Your task to perform on an android device: change notification settings in the gmail app Image 0: 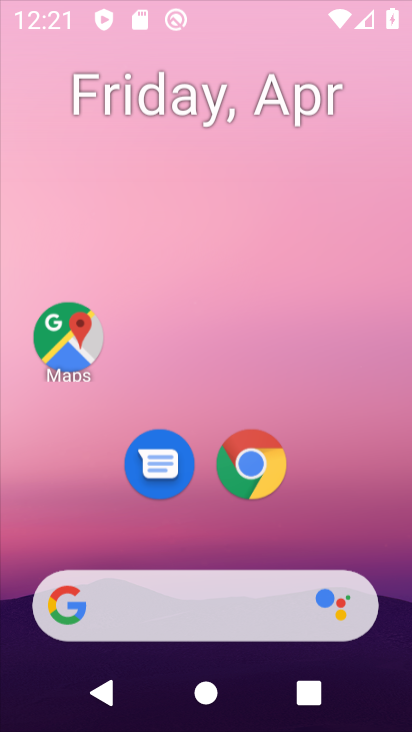
Step 0: click (365, 117)
Your task to perform on an android device: change notification settings in the gmail app Image 1: 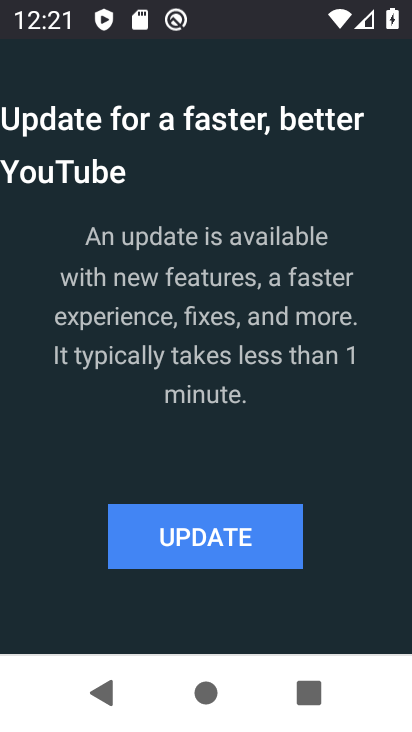
Step 1: press home button
Your task to perform on an android device: change notification settings in the gmail app Image 2: 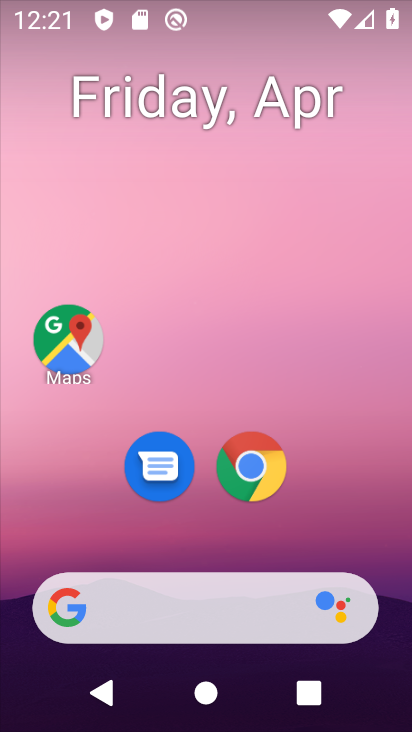
Step 2: drag from (349, 498) to (336, 141)
Your task to perform on an android device: change notification settings in the gmail app Image 3: 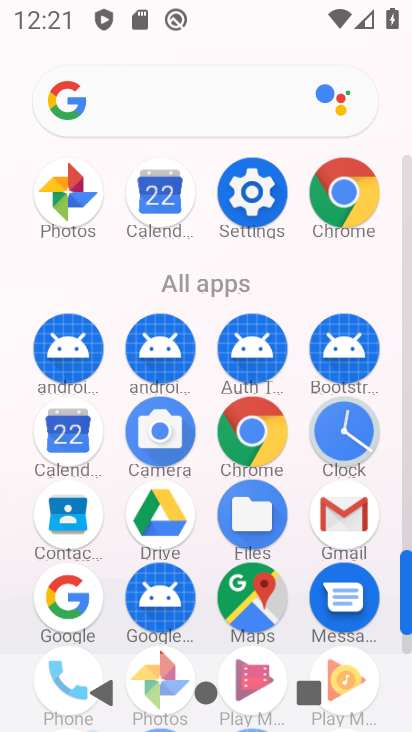
Step 3: click (349, 519)
Your task to perform on an android device: change notification settings in the gmail app Image 4: 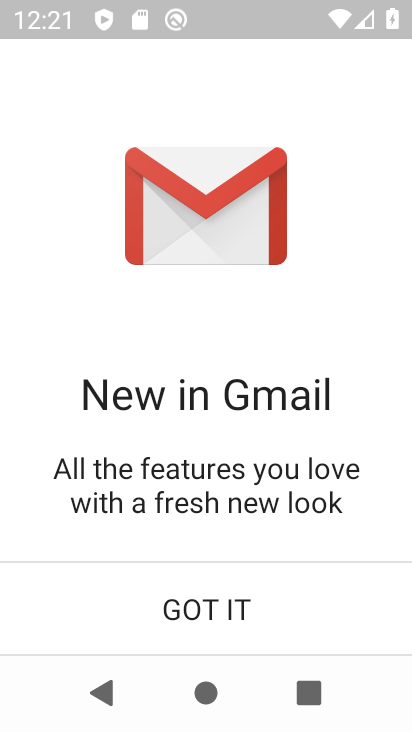
Step 4: click (209, 610)
Your task to perform on an android device: change notification settings in the gmail app Image 5: 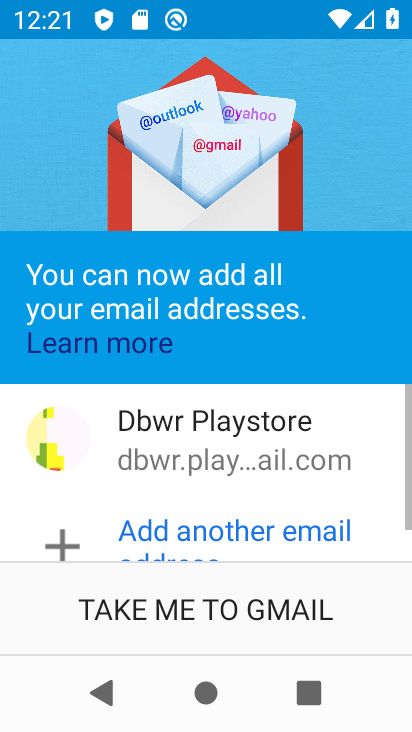
Step 5: click (209, 609)
Your task to perform on an android device: change notification settings in the gmail app Image 6: 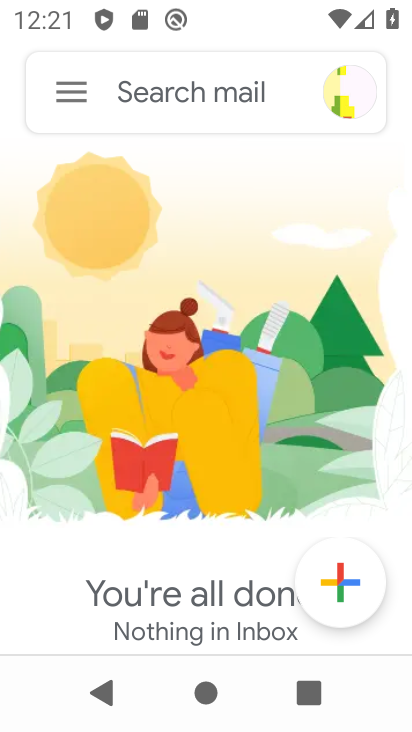
Step 6: click (89, 101)
Your task to perform on an android device: change notification settings in the gmail app Image 7: 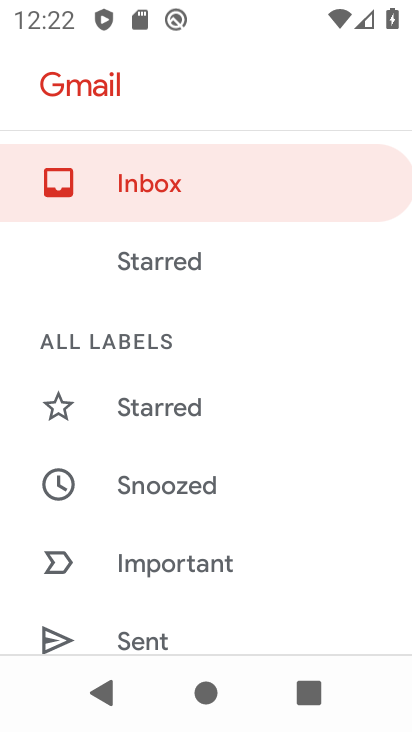
Step 7: drag from (248, 628) to (255, 270)
Your task to perform on an android device: change notification settings in the gmail app Image 8: 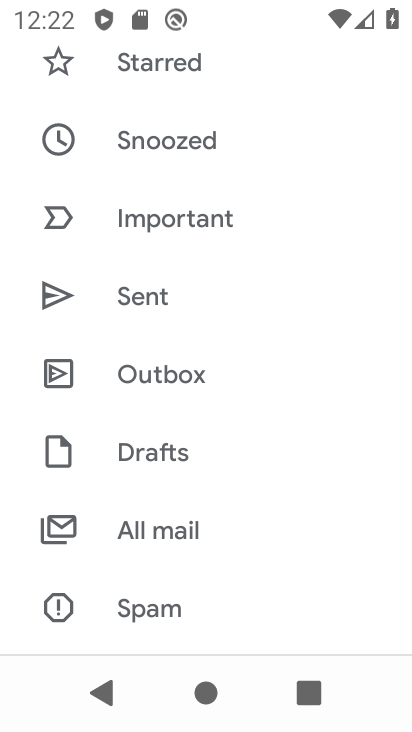
Step 8: drag from (254, 557) to (242, 233)
Your task to perform on an android device: change notification settings in the gmail app Image 9: 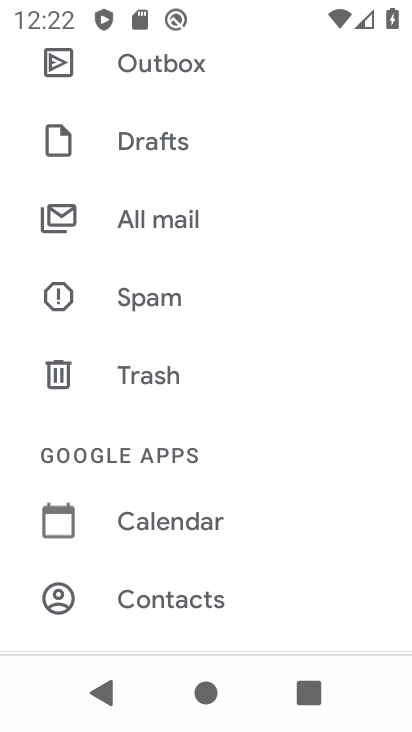
Step 9: drag from (228, 530) to (225, 250)
Your task to perform on an android device: change notification settings in the gmail app Image 10: 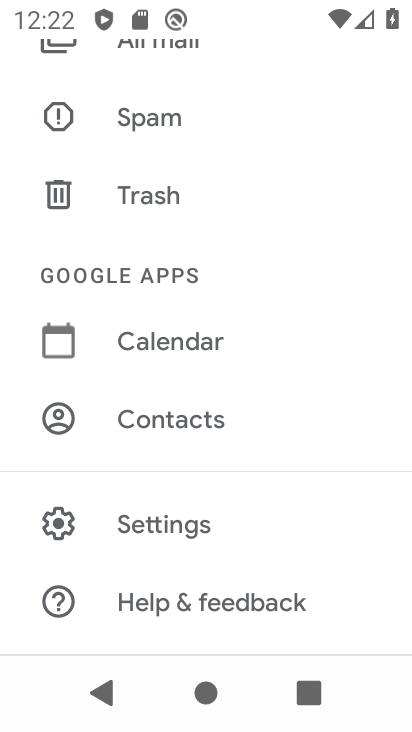
Step 10: click (191, 529)
Your task to perform on an android device: change notification settings in the gmail app Image 11: 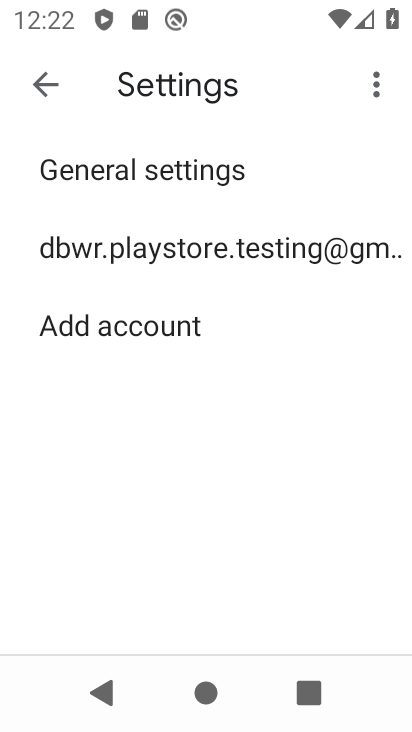
Step 11: click (288, 257)
Your task to perform on an android device: change notification settings in the gmail app Image 12: 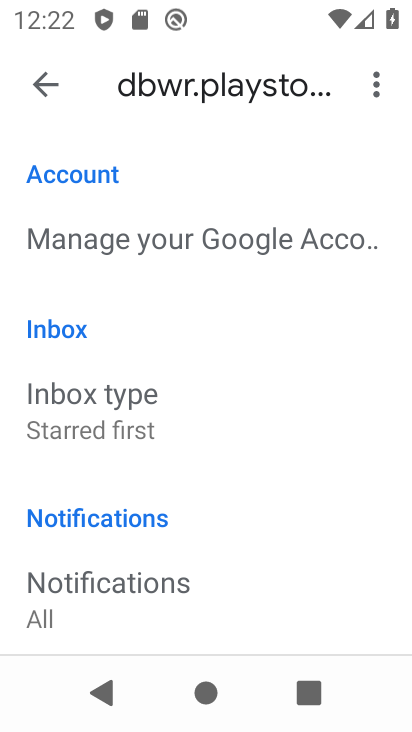
Step 12: click (104, 585)
Your task to perform on an android device: change notification settings in the gmail app Image 13: 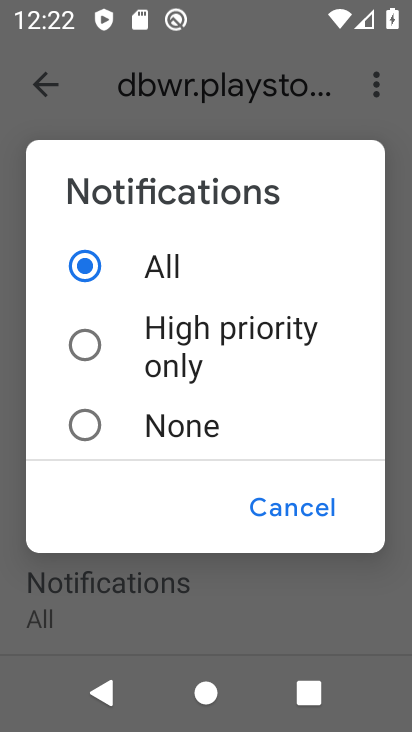
Step 13: click (174, 352)
Your task to perform on an android device: change notification settings in the gmail app Image 14: 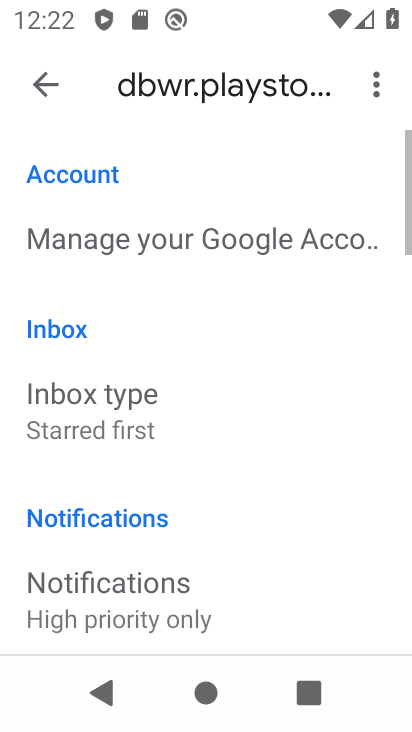
Step 14: task complete